Your task to perform on an android device: set default search engine in the chrome app Image 0: 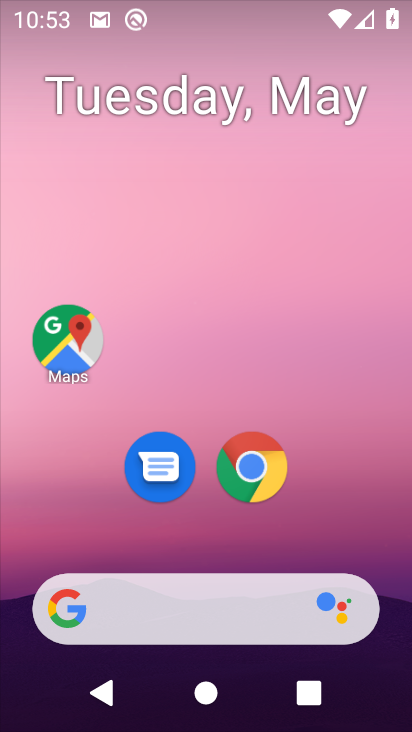
Step 0: drag from (281, 520) to (302, 264)
Your task to perform on an android device: set default search engine in the chrome app Image 1: 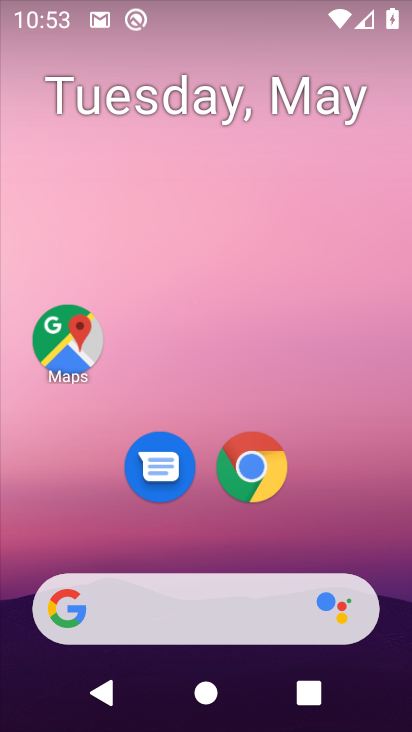
Step 1: drag from (216, 504) to (300, 124)
Your task to perform on an android device: set default search engine in the chrome app Image 2: 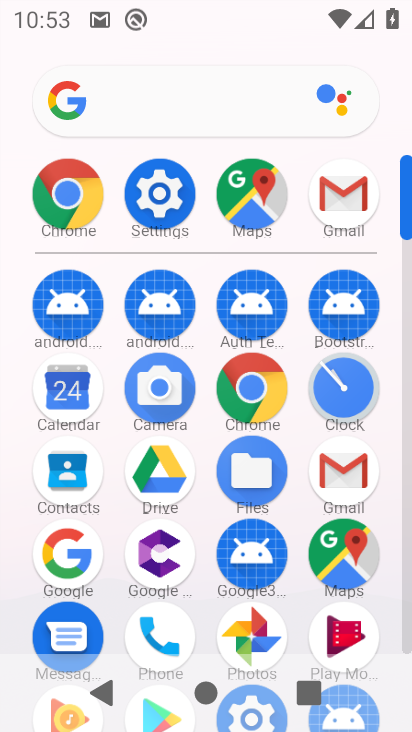
Step 2: click (256, 375)
Your task to perform on an android device: set default search engine in the chrome app Image 3: 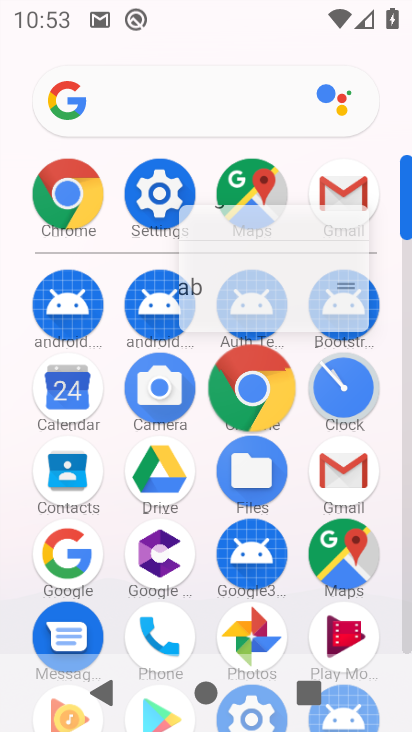
Step 3: click (256, 375)
Your task to perform on an android device: set default search engine in the chrome app Image 4: 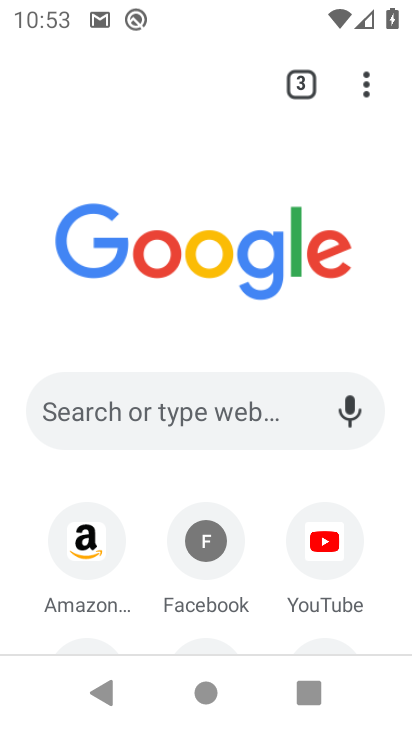
Step 4: click (382, 89)
Your task to perform on an android device: set default search engine in the chrome app Image 5: 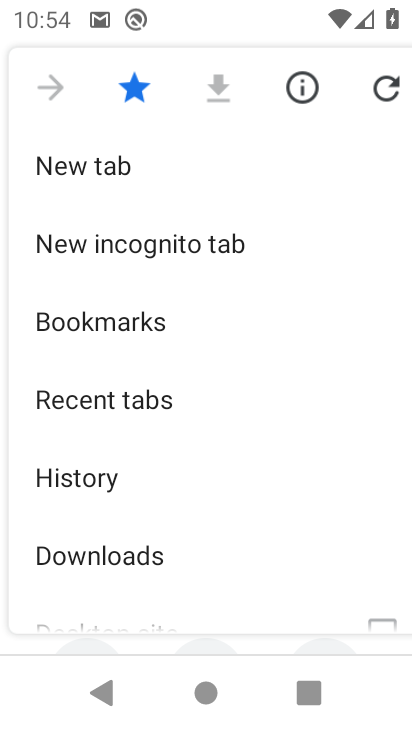
Step 5: drag from (194, 554) to (253, 120)
Your task to perform on an android device: set default search engine in the chrome app Image 6: 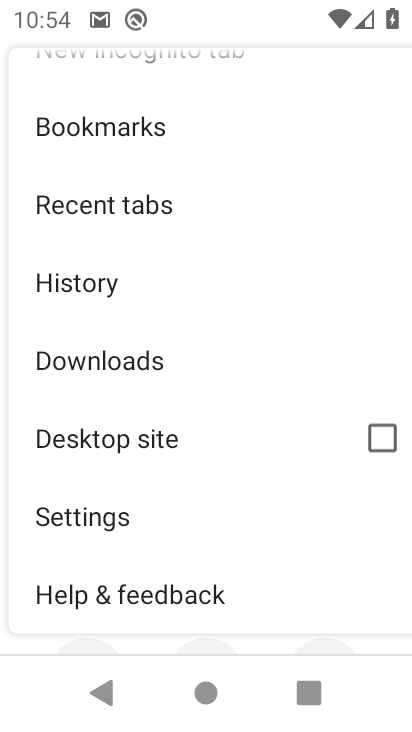
Step 6: click (131, 529)
Your task to perform on an android device: set default search engine in the chrome app Image 7: 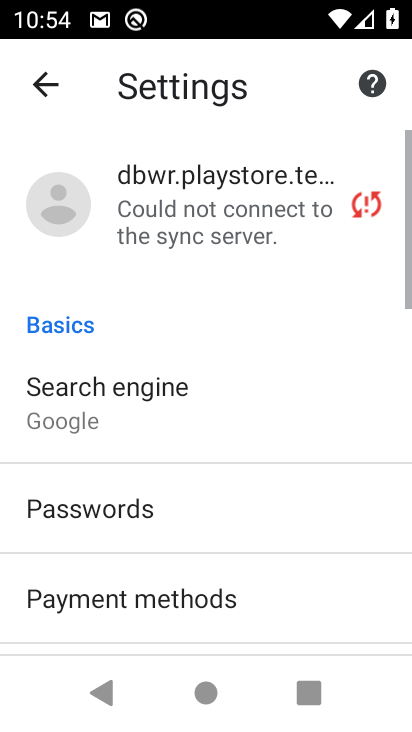
Step 7: drag from (138, 514) to (207, 182)
Your task to perform on an android device: set default search engine in the chrome app Image 8: 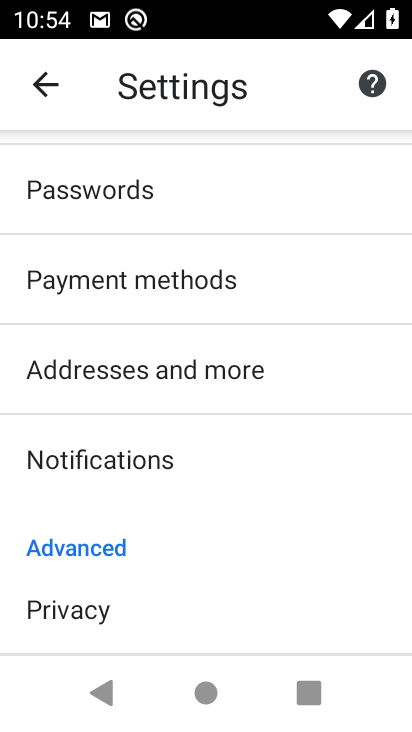
Step 8: drag from (182, 189) to (277, 503)
Your task to perform on an android device: set default search engine in the chrome app Image 9: 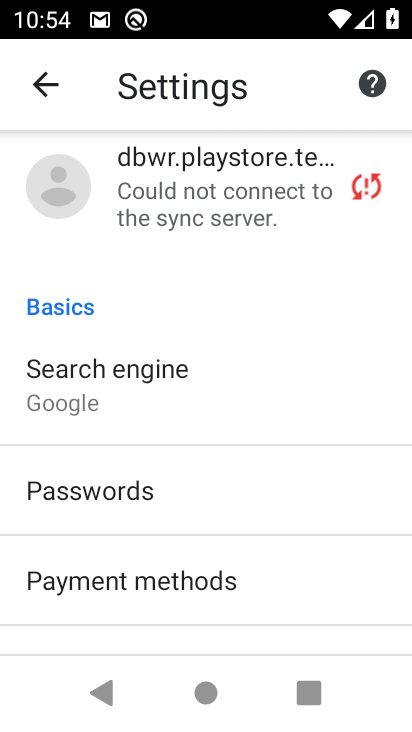
Step 9: click (148, 404)
Your task to perform on an android device: set default search engine in the chrome app Image 10: 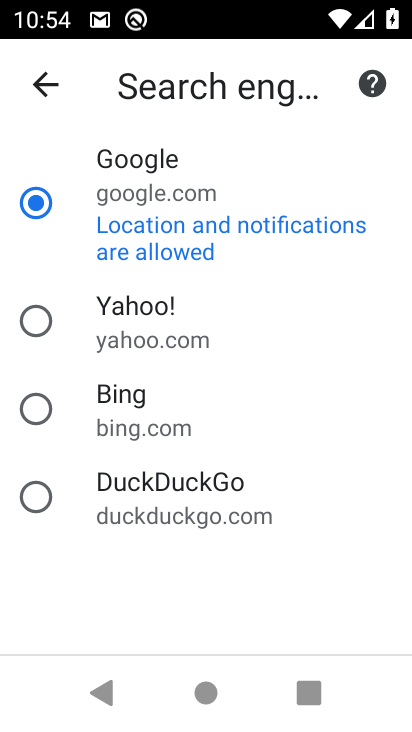
Step 10: task complete